Your task to perform on an android device: Is it going to rain tomorrow? Image 0: 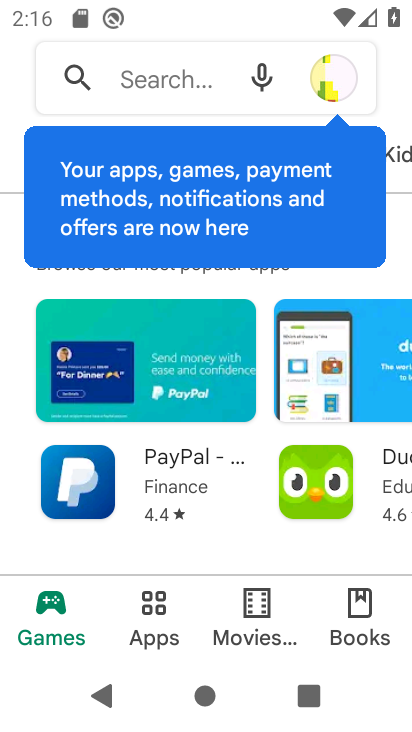
Step 0: press home button
Your task to perform on an android device: Is it going to rain tomorrow? Image 1: 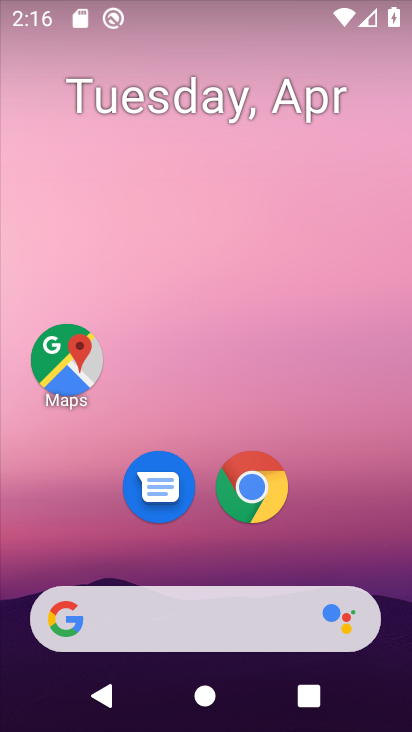
Step 1: click (218, 610)
Your task to perform on an android device: Is it going to rain tomorrow? Image 2: 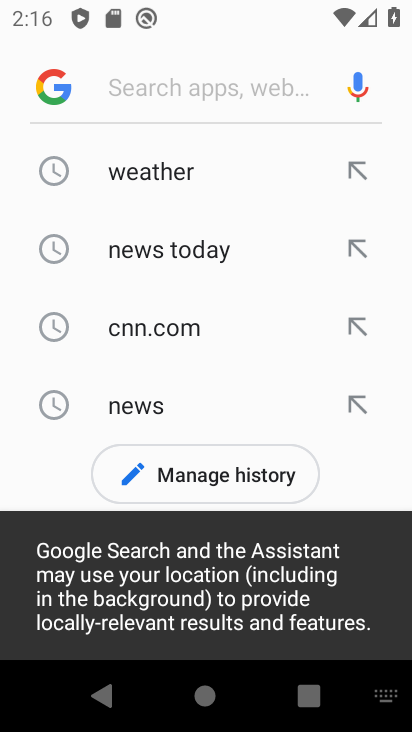
Step 2: click (166, 71)
Your task to perform on an android device: Is it going to rain tomorrow? Image 3: 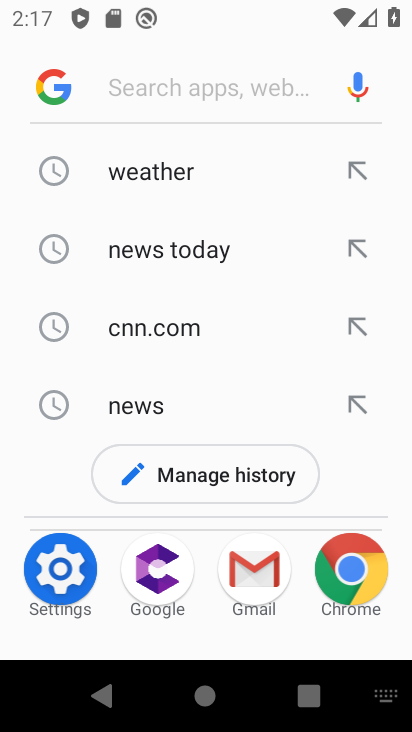
Step 3: type "is it going to rain tomorrow"
Your task to perform on an android device: Is it going to rain tomorrow? Image 4: 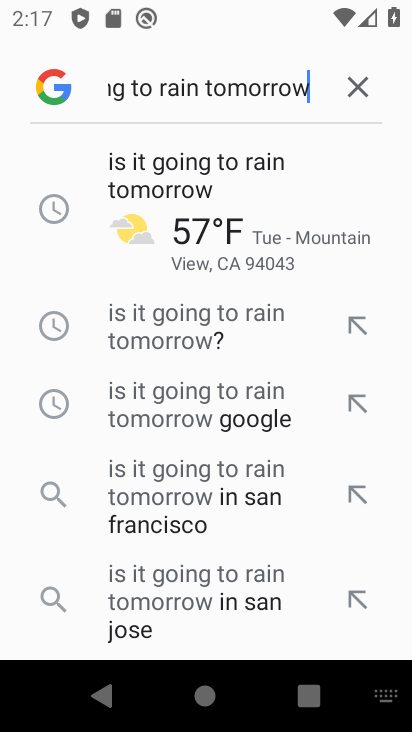
Step 4: click (188, 194)
Your task to perform on an android device: Is it going to rain tomorrow? Image 5: 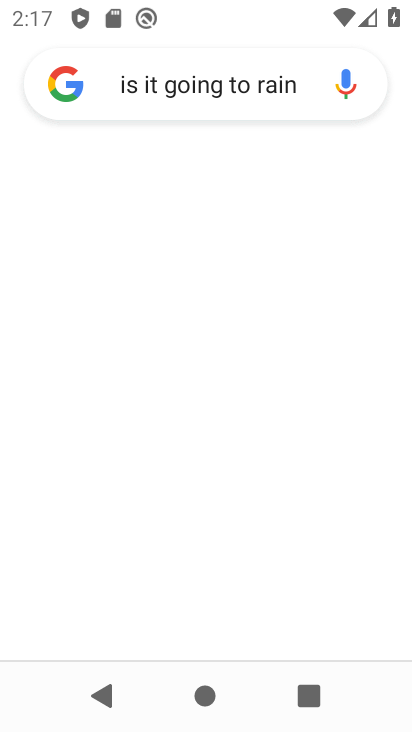
Step 5: click (177, 226)
Your task to perform on an android device: Is it going to rain tomorrow? Image 6: 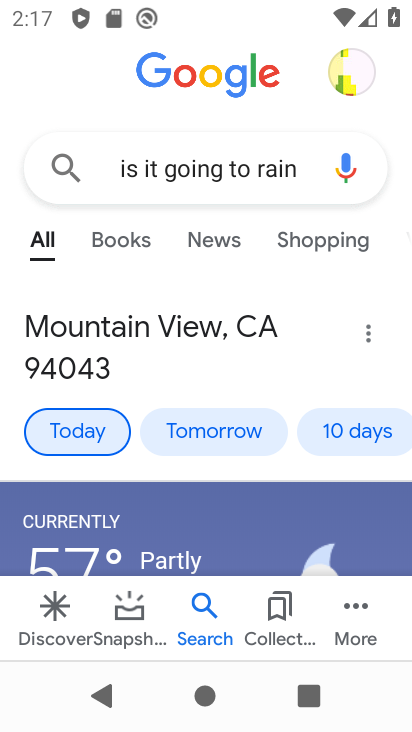
Step 6: task complete